Your task to perform on an android device: open app "Pandora - Music & Podcasts" (install if not already installed), go to login, and select forgot password Image 0: 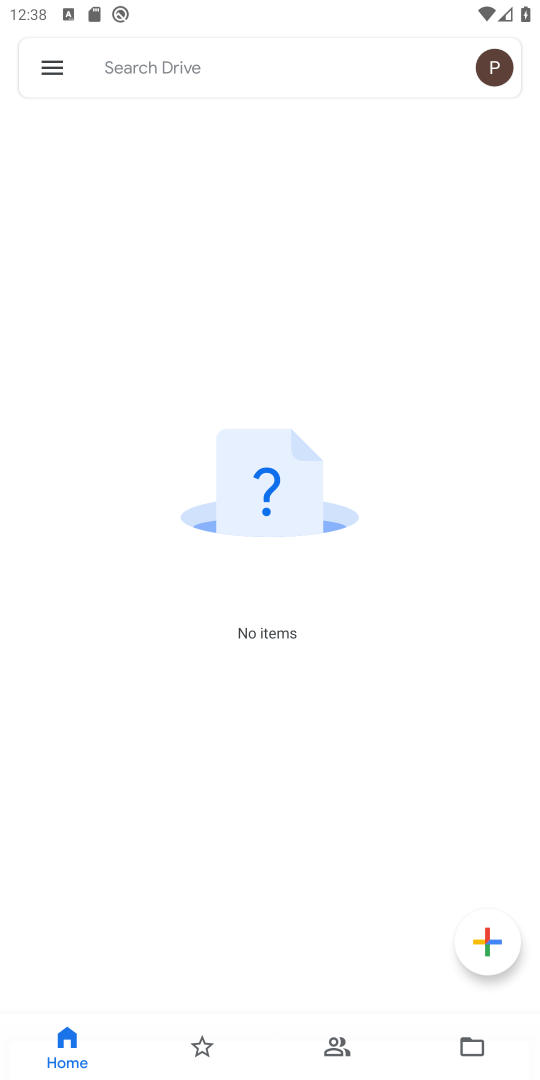
Step 0: press home button
Your task to perform on an android device: open app "Pandora - Music & Podcasts" (install if not already installed), go to login, and select forgot password Image 1: 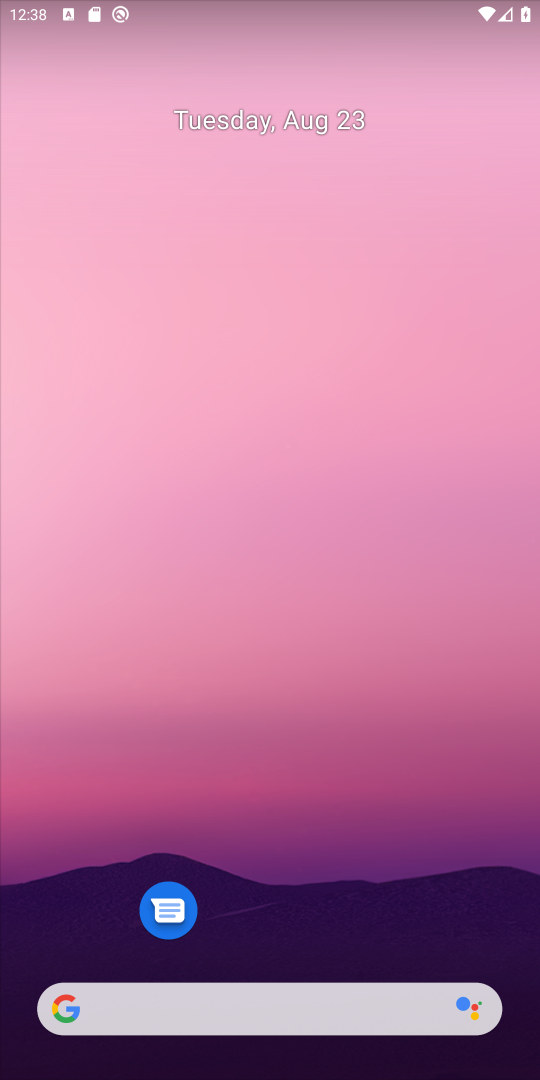
Step 1: drag from (346, 783) to (372, 21)
Your task to perform on an android device: open app "Pandora - Music & Podcasts" (install if not already installed), go to login, and select forgot password Image 2: 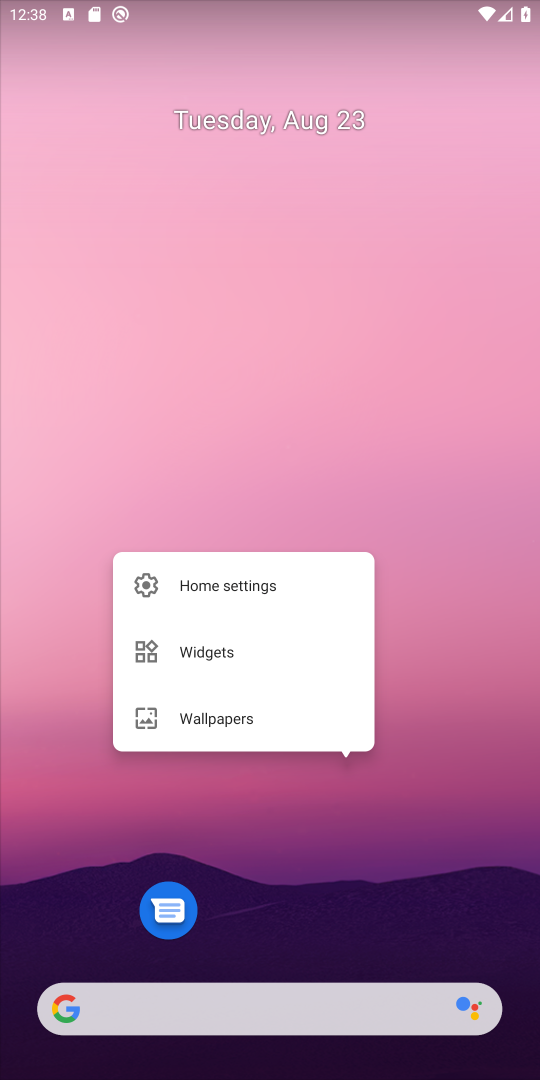
Step 2: click (359, 826)
Your task to perform on an android device: open app "Pandora - Music & Podcasts" (install if not already installed), go to login, and select forgot password Image 3: 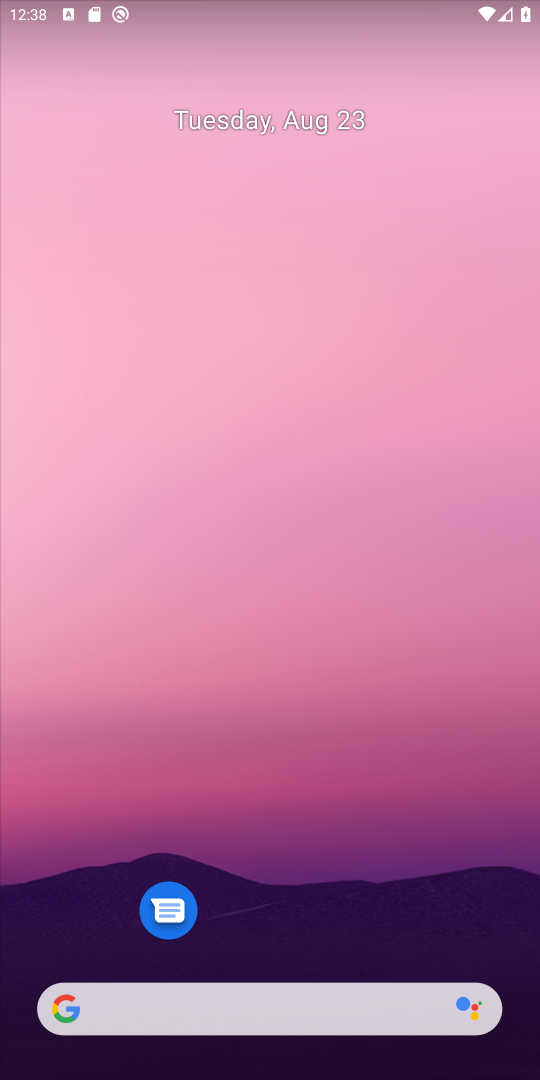
Step 3: drag from (415, 789) to (531, 2)
Your task to perform on an android device: open app "Pandora - Music & Podcasts" (install if not already installed), go to login, and select forgot password Image 4: 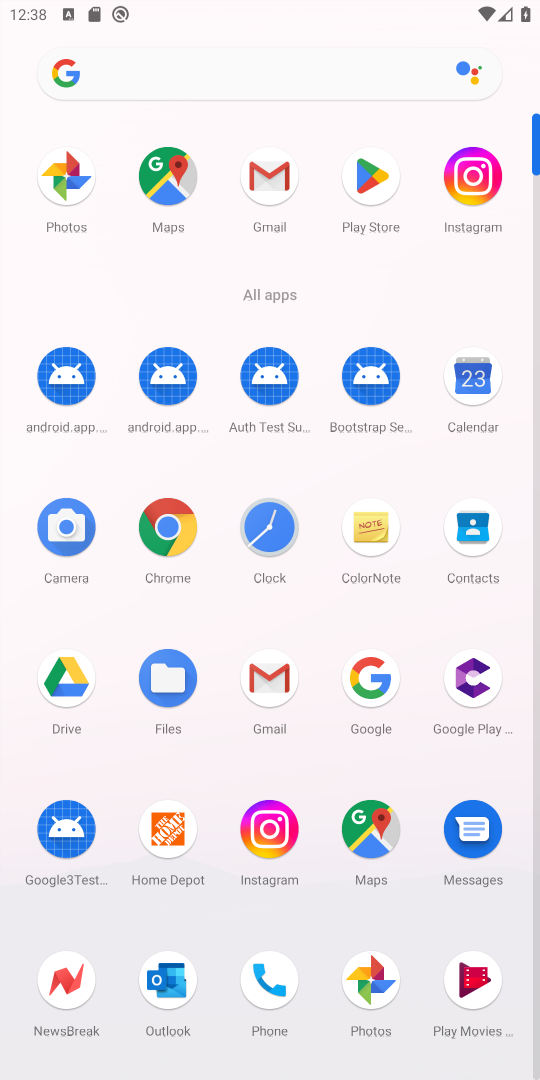
Step 4: click (368, 165)
Your task to perform on an android device: open app "Pandora - Music & Podcasts" (install if not already installed), go to login, and select forgot password Image 5: 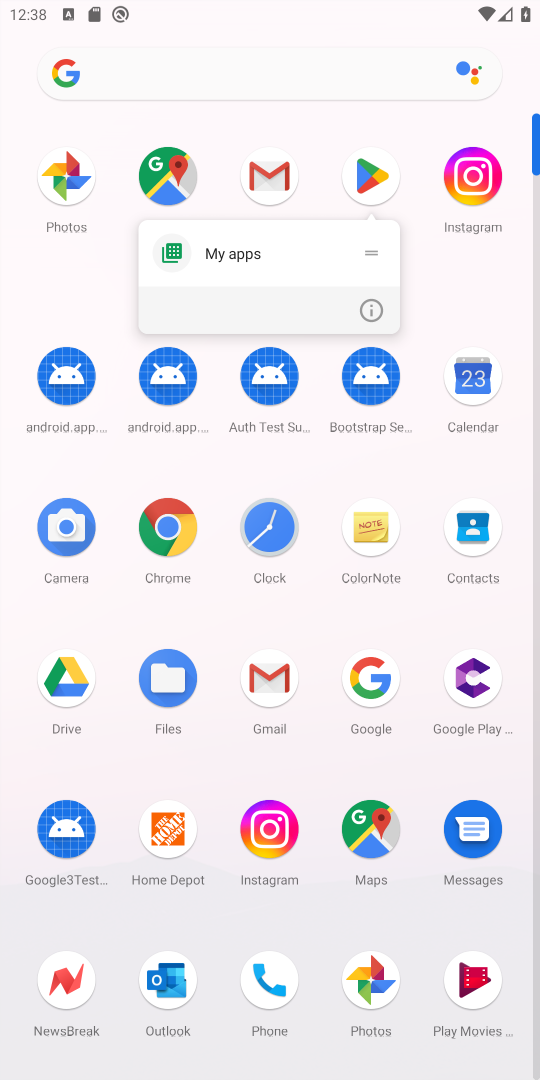
Step 5: click (373, 185)
Your task to perform on an android device: open app "Pandora - Music & Podcasts" (install if not already installed), go to login, and select forgot password Image 6: 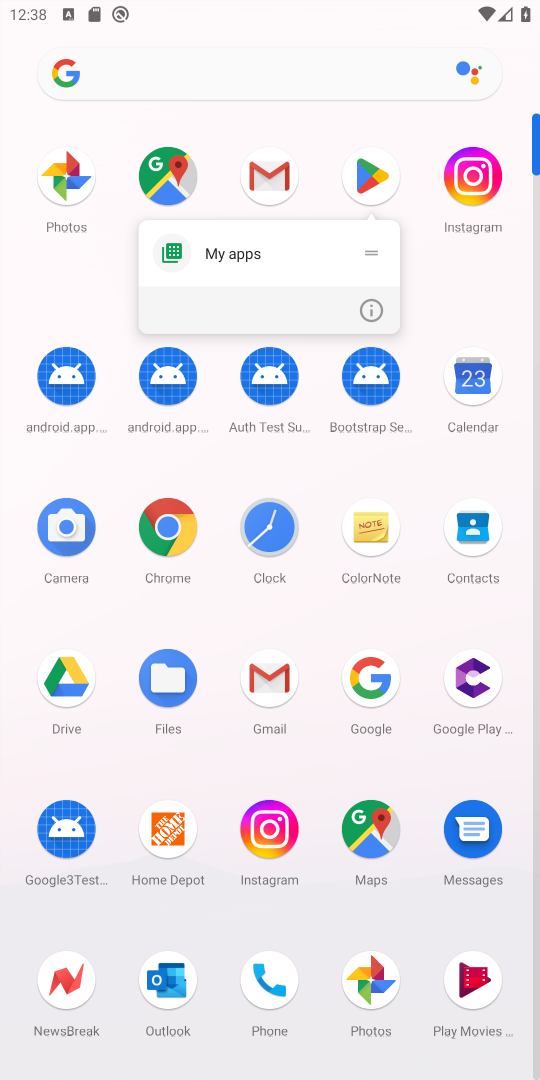
Step 6: click (368, 188)
Your task to perform on an android device: open app "Pandora - Music & Podcasts" (install if not already installed), go to login, and select forgot password Image 7: 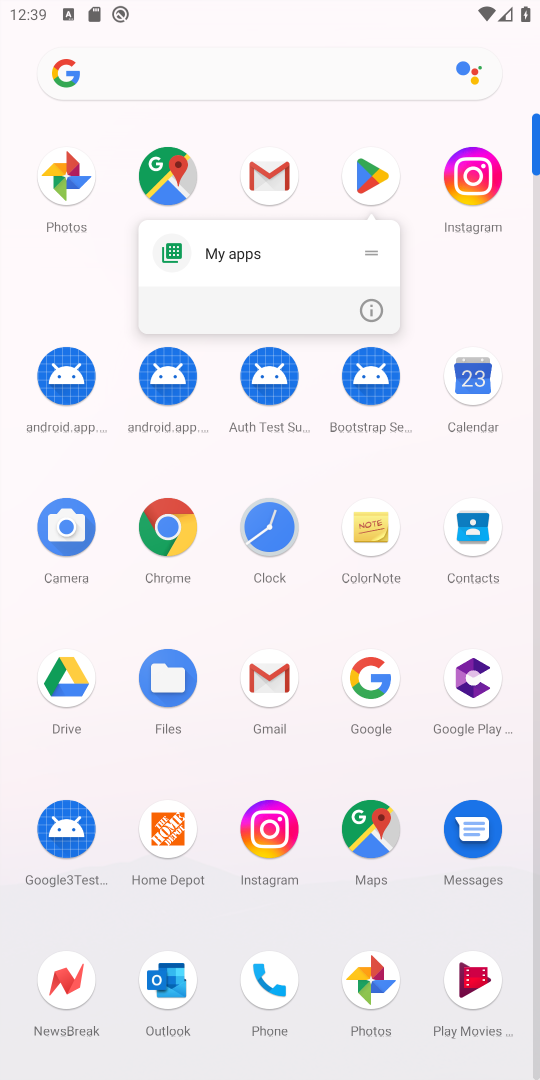
Step 7: click (374, 183)
Your task to perform on an android device: open app "Pandora - Music & Podcasts" (install if not already installed), go to login, and select forgot password Image 8: 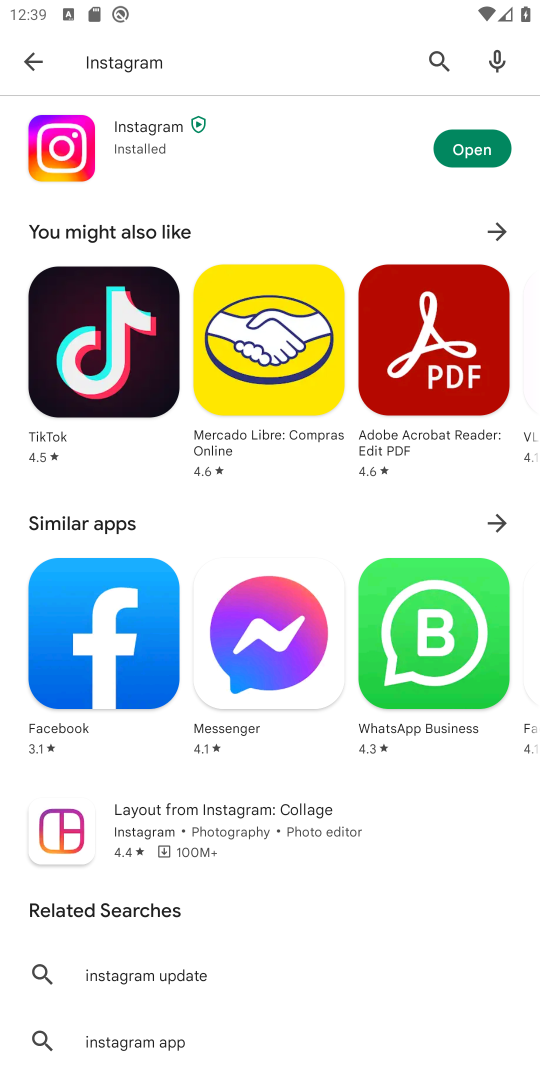
Step 8: press back button
Your task to perform on an android device: open app "Pandora - Music & Podcasts" (install if not already installed), go to login, and select forgot password Image 9: 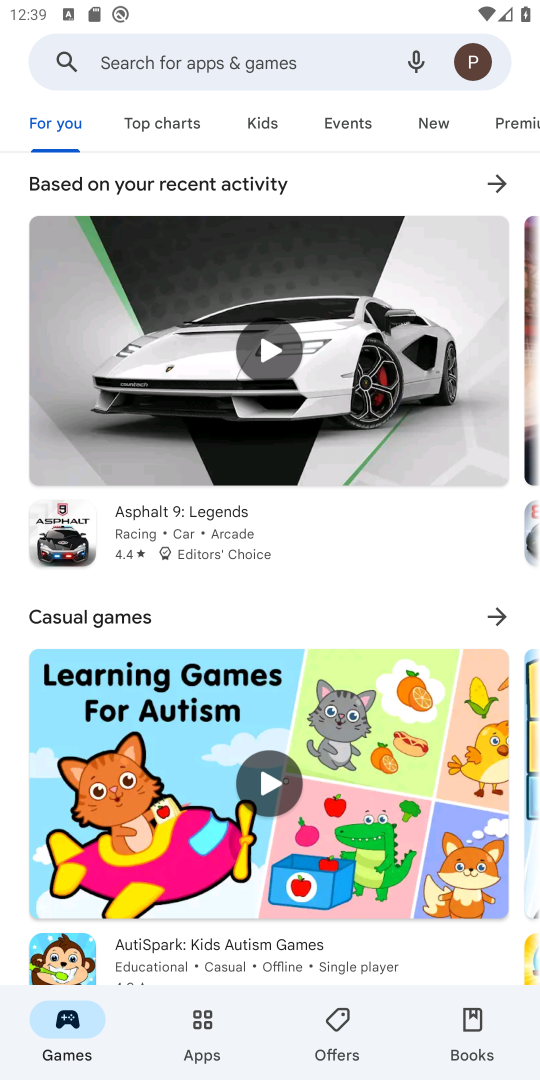
Step 9: click (240, 71)
Your task to perform on an android device: open app "Pandora - Music & Podcasts" (install if not already installed), go to login, and select forgot password Image 10: 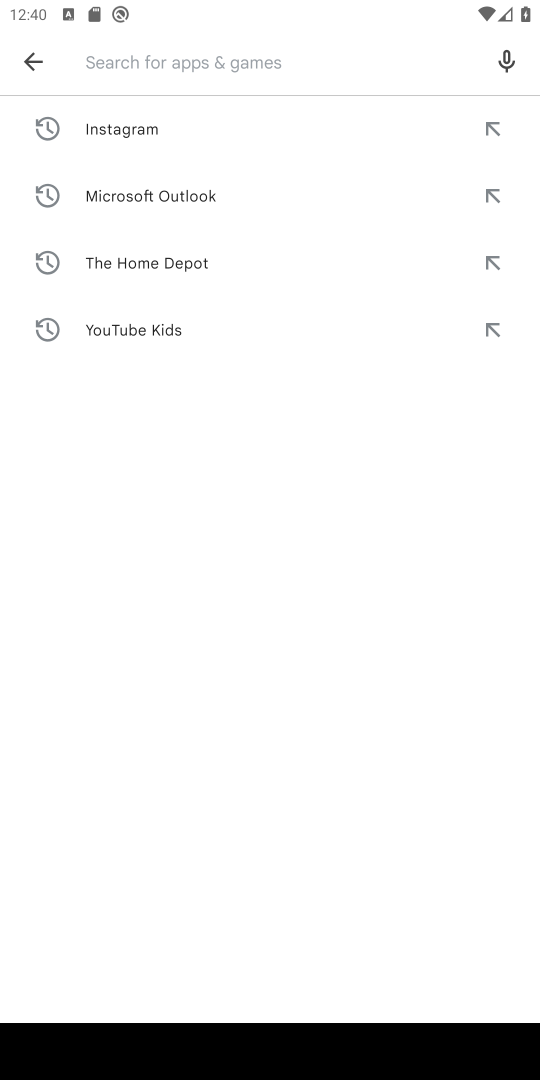
Step 10: type "Pandora - Music & Podcasts"
Your task to perform on an android device: open app "Pandora - Music & Podcasts" (install if not already installed), go to login, and select forgot password Image 11: 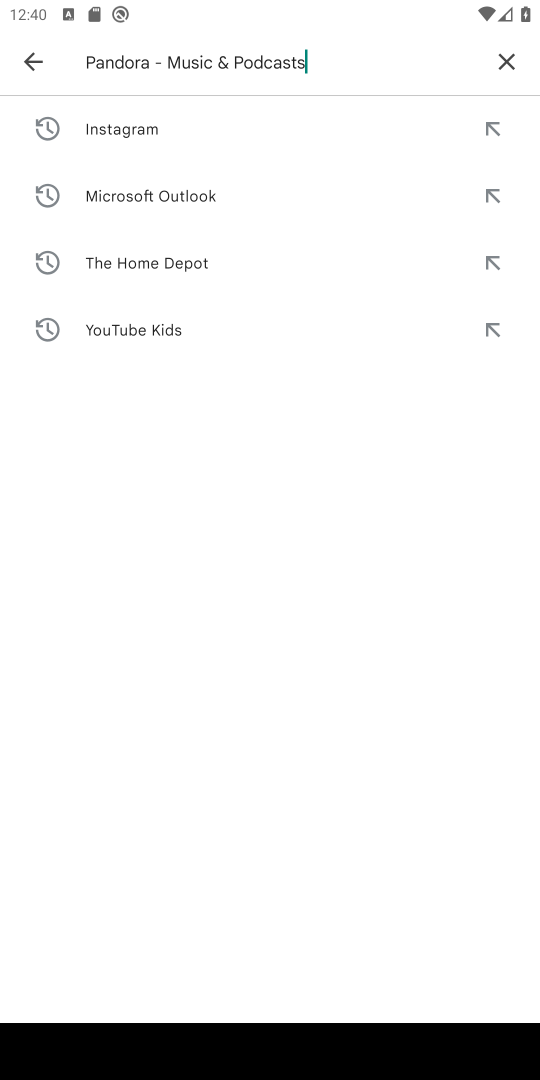
Step 11: press enter
Your task to perform on an android device: open app "Pandora - Music & Podcasts" (install if not already installed), go to login, and select forgot password Image 12: 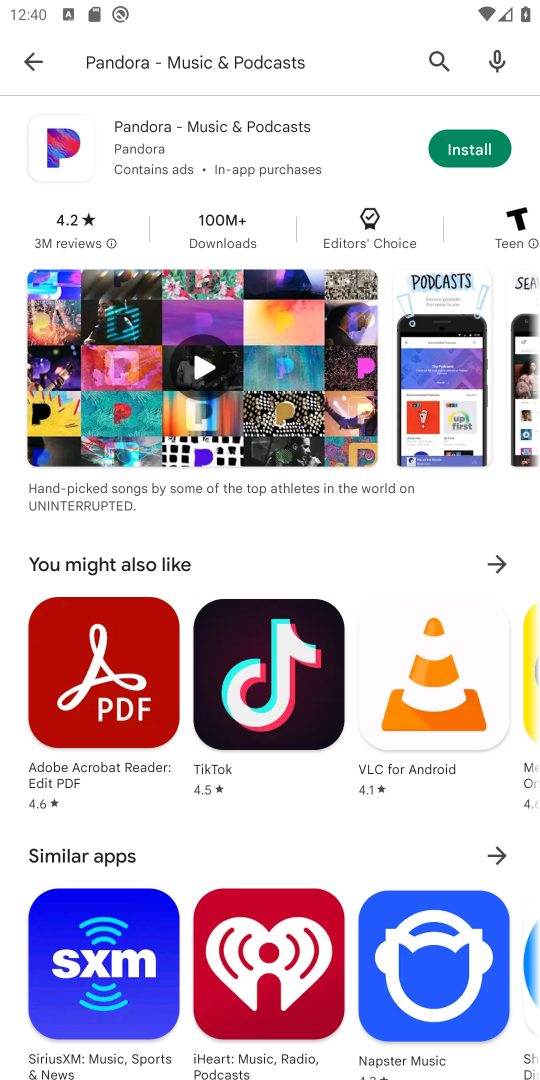
Step 12: click (495, 149)
Your task to perform on an android device: open app "Pandora - Music & Podcasts" (install if not already installed), go to login, and select forgot password Image 13: 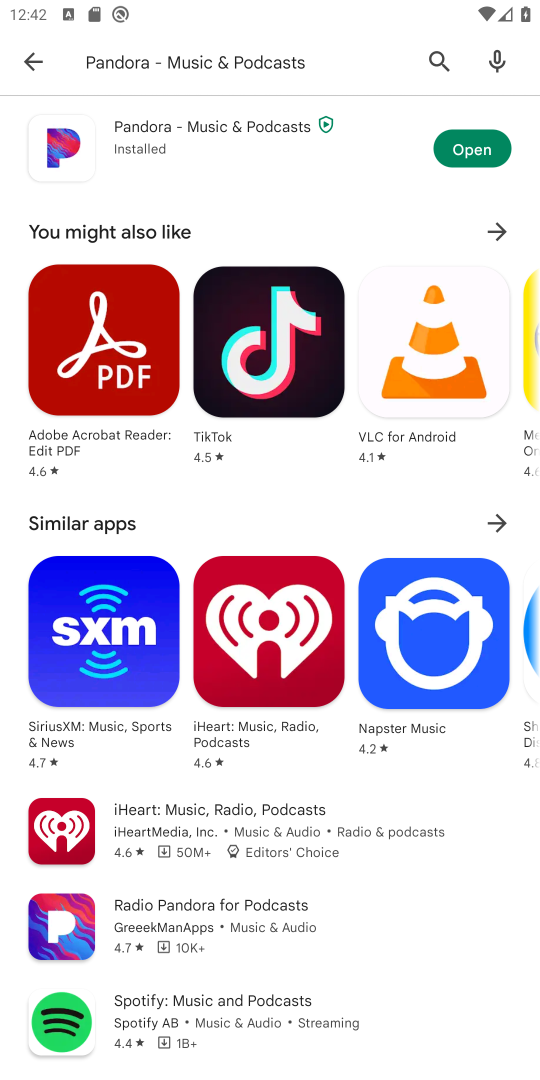
Step 13: click (468, 167)
Your task to perform on an android device: open app "Pandora - Music & Podcasts" (install if not already installed), go to login, and select forgot password Image 14: 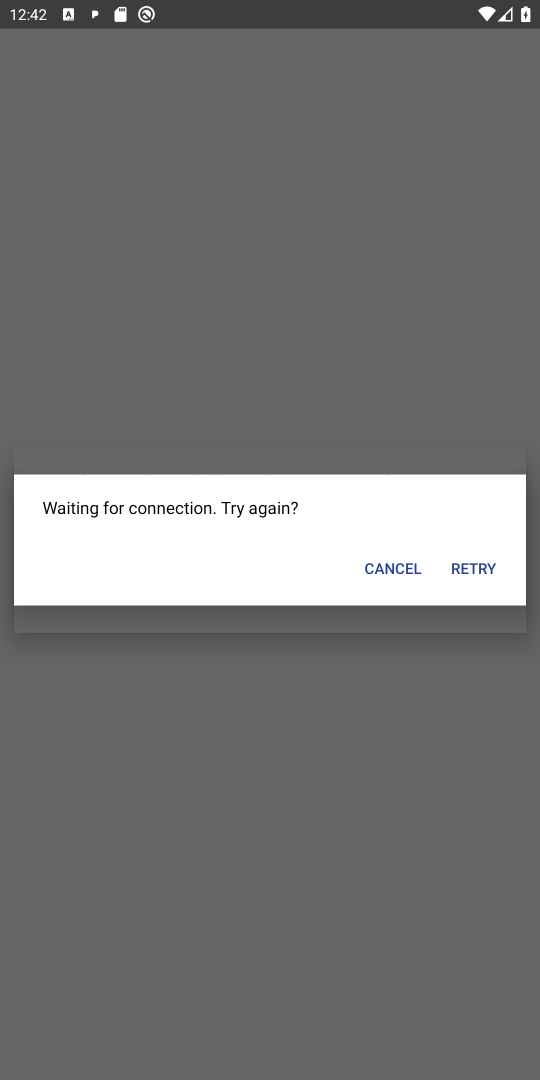
Step 14: click (475, 571)
Your task to perform on an android device: open app "Pandora - Music & Podcasts" (install if not already installed), go to login, and select forgot password Image 15: 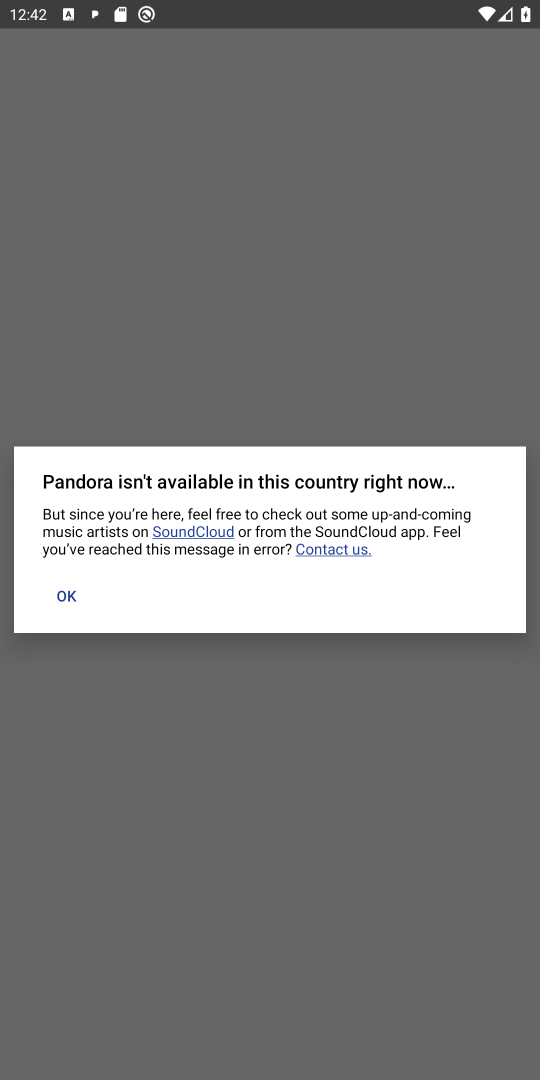
Step 15: click (71, 602)
Your task to perform on an android device: open app "Pandora - Music & Podcasts" (install if not already installed), go to login, and select forgot password Image 16: 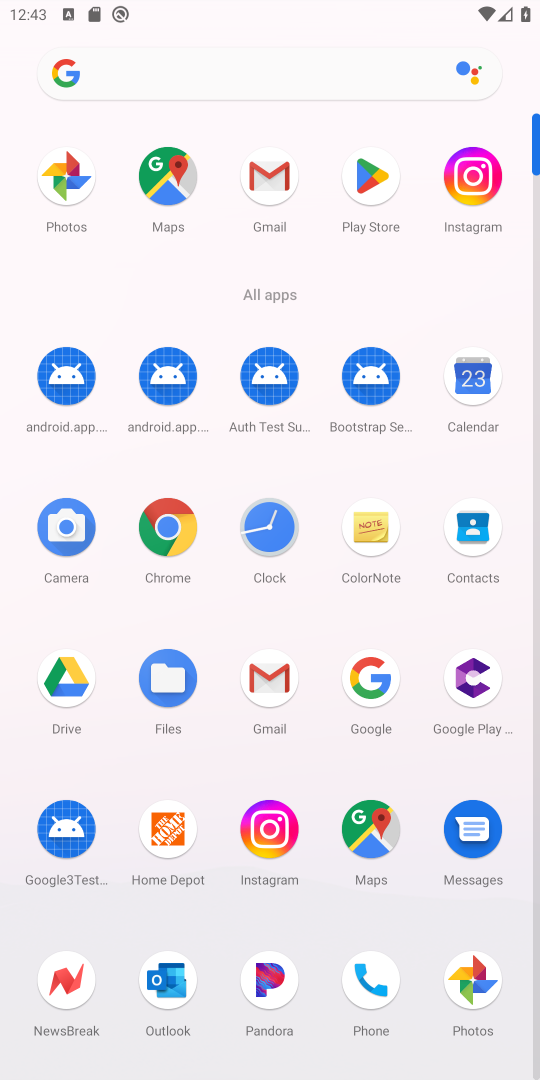
Step 16: click (377, 171)
Your task to perform on an android device: open app "Pandora - Music & Podcasts" (install if not already installed), go to login, and select forgot password Image 17: 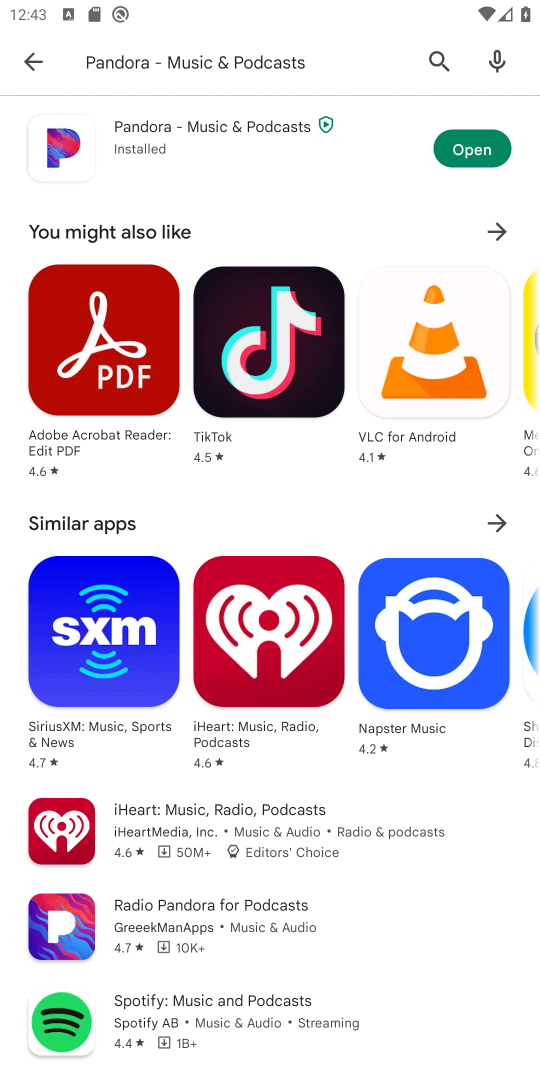
Step 17: task complete